Your task to perform on an android device: Search for seafood restaurants on Google Maps Image 0: 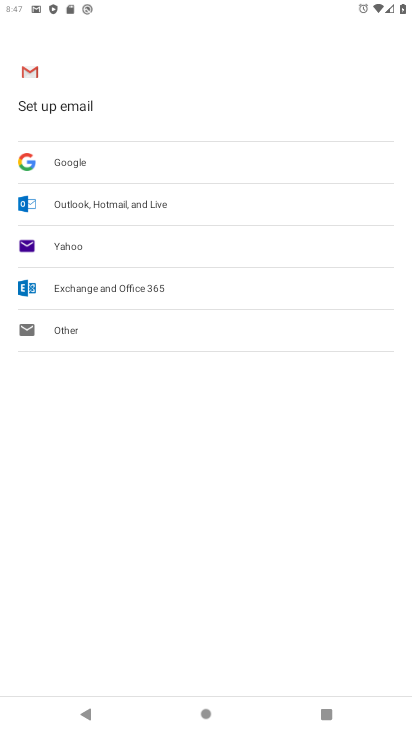
Step 0: press home button
Your task to perform on an android device: Search for seafood restaurants on Google Maps Image 1: 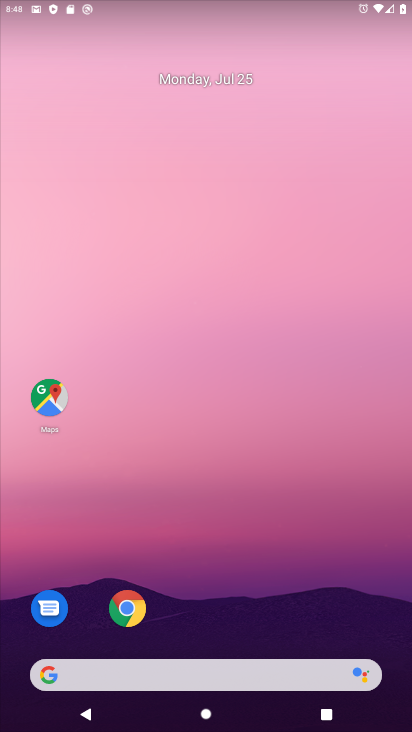
Step 1: click (48, 406)
Your task to perform on an android device: Search for seafood restaurants on Google Maps Image 2: 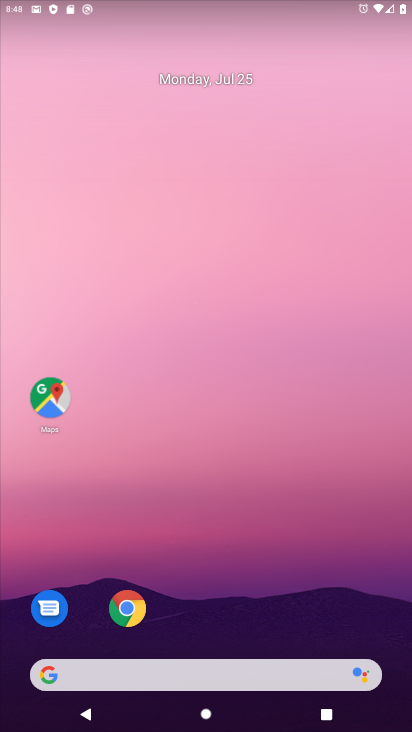
Step 2: click (48, 406)
Your task to perform on an android device: Search for seafood restaurants on Google Maps Image 3: 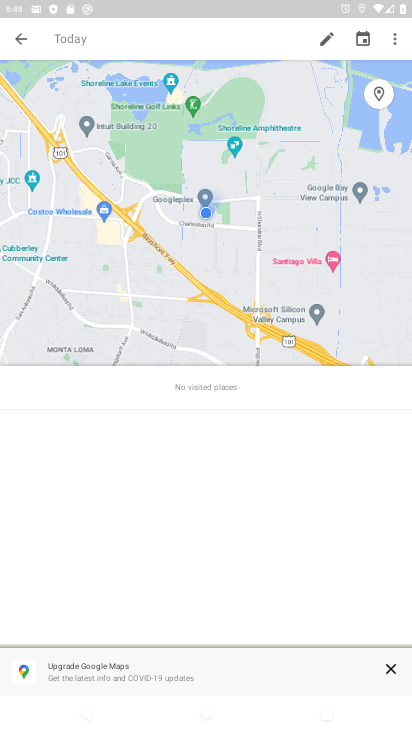
Step 3: click (24, 44)
Your task to perform on an android device: Search for seafood restaurants on Google Maps Image 4: 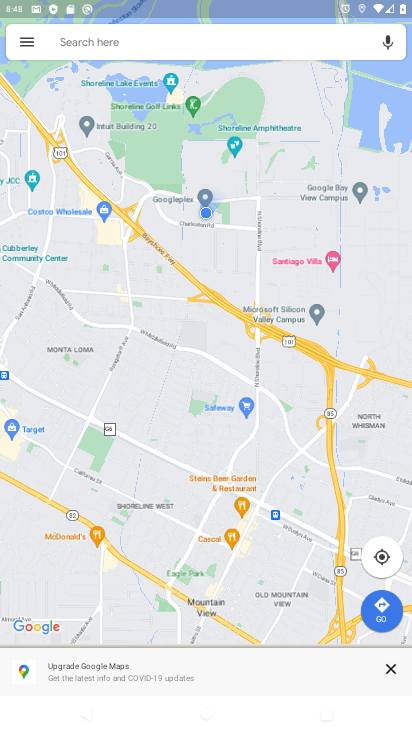
Step 4: click (114, 40)
Your task to perform on an android device: Search for seafood restaurants on Google Maps Image 5: 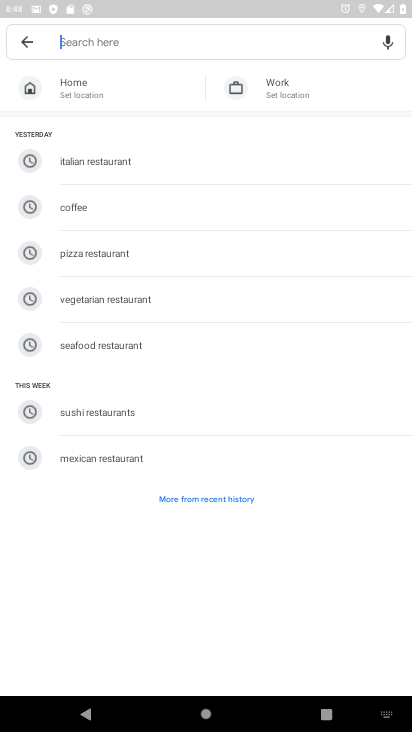
Step 5: click (113, 343)
Your task to perform on an android device: Search for seafood restaurants on Google Maps Image 6: 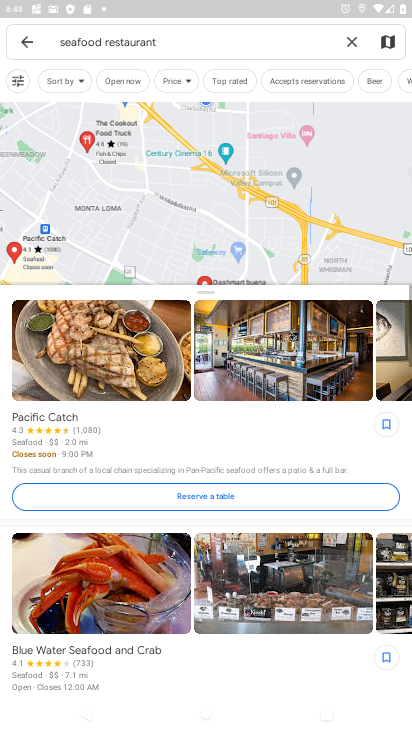
Step 6: task complete